Your task to perform on an android device: set default search engine in the chrome app Image 0: 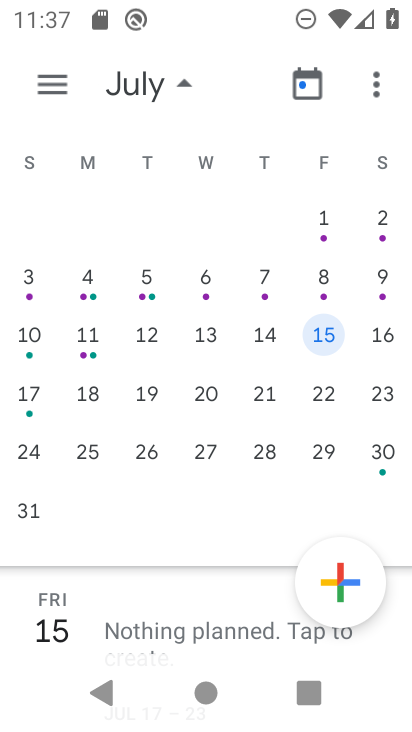
Step 0: press home button
Your task to perform on an android device: set default search engine in the chrome app Image 1: 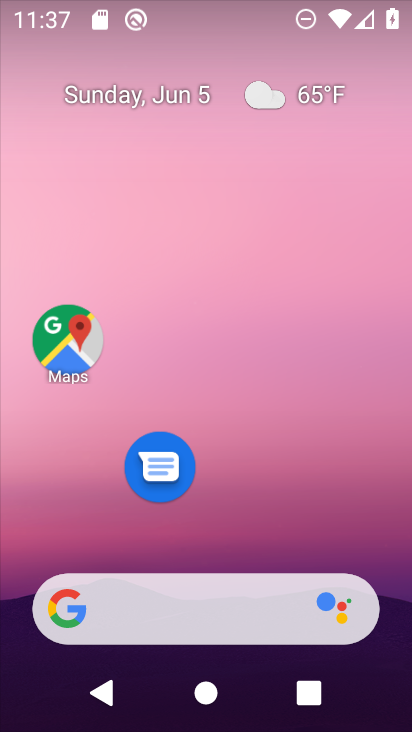
Step 1: drag from (281, 476) to (311, 106)
Your task to perform on an android device: set default search engine in the chrome app Image 2: 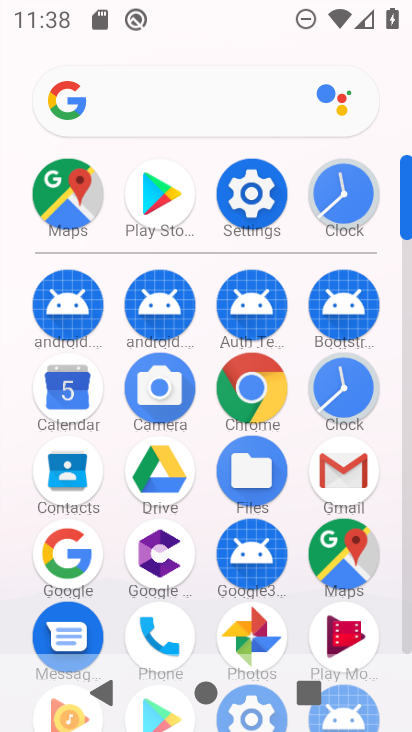
Step 2: drag from (260, 568) to (260, 465)
Your task to perform on an android device: set default search engine in the chrome app Image 3: 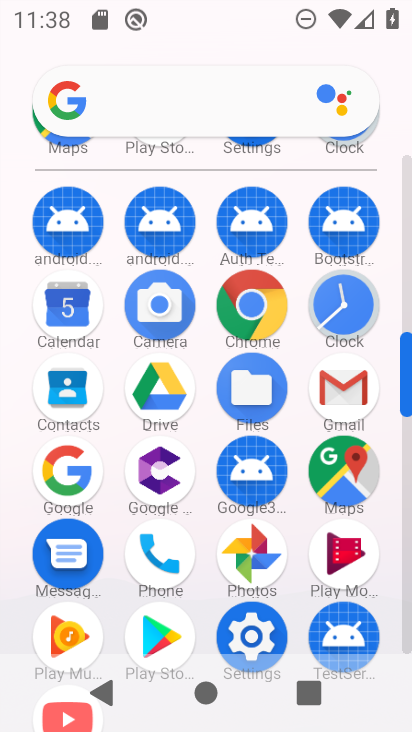
Step 3: click (254, 292)
Your task to perform on an android device: set default search engine in the chrome app Image 4: 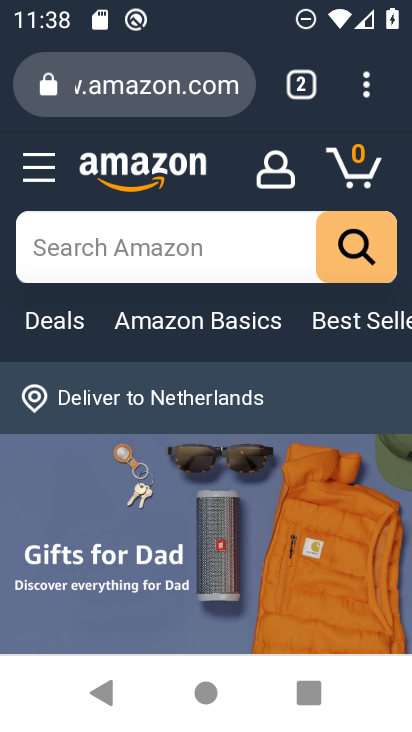
Step 4: drag from (349, 72) to (129, 499)
Your task to perform on an android device: set default search engine in the chrome app Image 5: 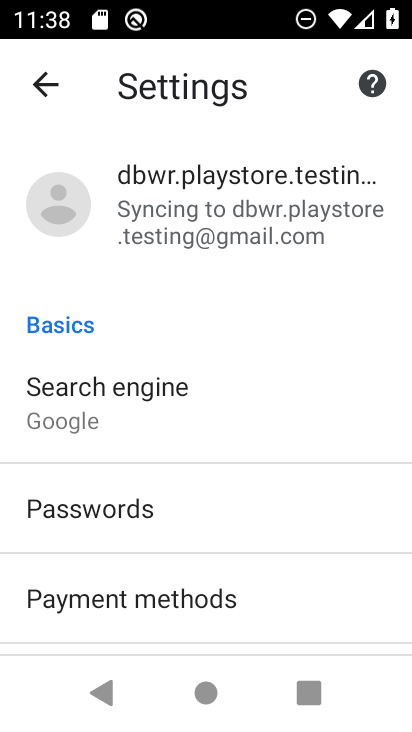
Step 5: drag from (336, 555) to (277, 223)
Your task to perform on an android device: set default search engine in the chrome app Image 6: 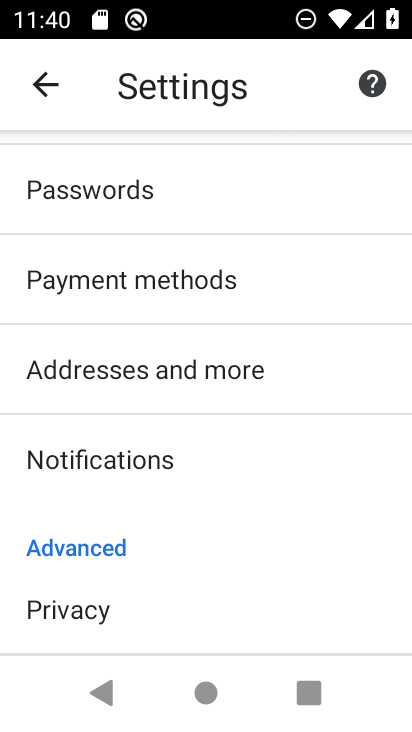
Step 6: drag from (240, 613) to (209, 723)
Your task to perform on an android device: set default search engine in the chrome app Image 7: 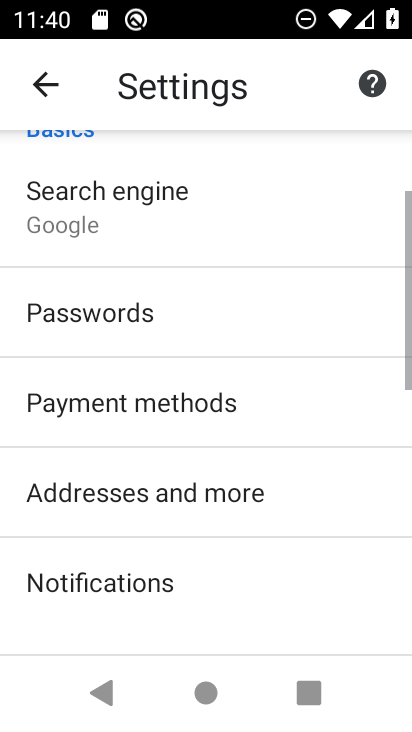
Step 7: drag from (320, 283) to (146, 729)
Your task to perform on an android device: set default search engine in the chrome app Image 8: 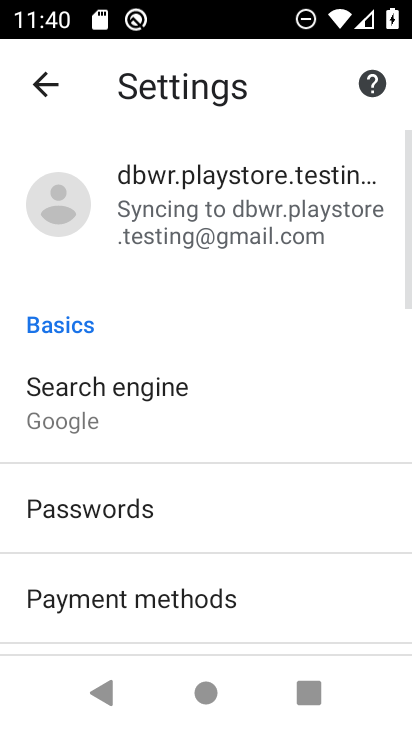
Step 8: click (132, 398)
Your task to perform on an android device: set default search engine in the chrome app Image 9: 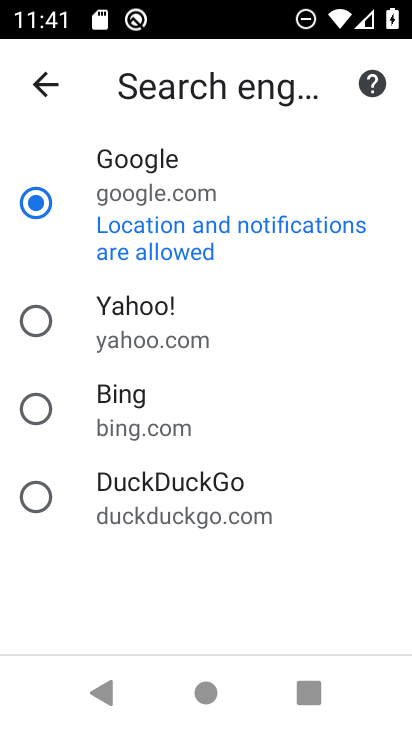
Step 9: task complete